Your task to perform on an android device: toggle translation in the chrome app Image 0: 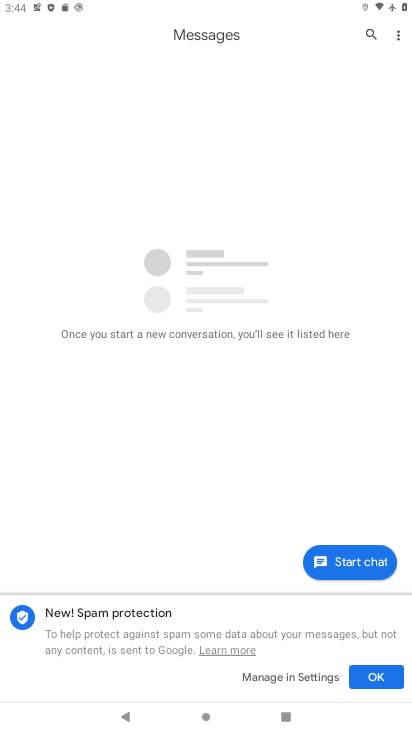
Step 0: press back button
Your task to perform on an android device: toggle translation in the chrome app Image 1: 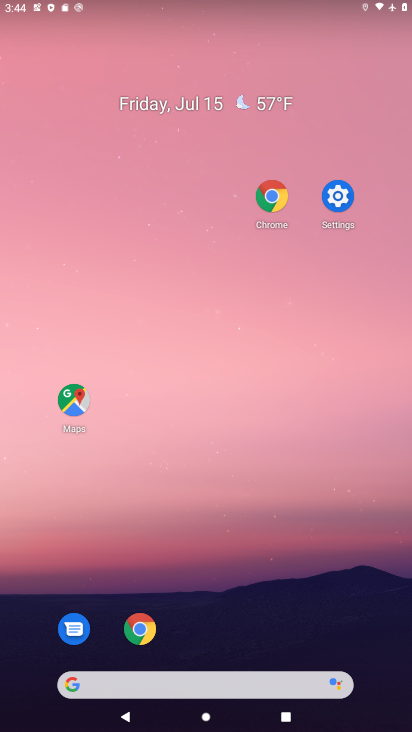
Step 1: drag from (280, 652) to (200, 129)
Your task to perform on an android device: toggle translation in the chrome app Image 2: 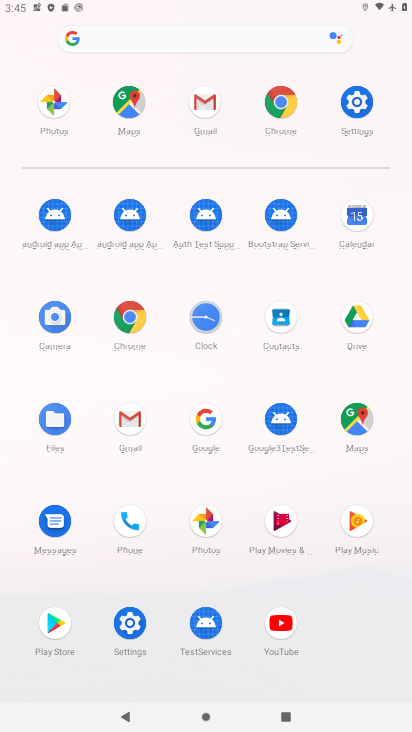
Step 2: click (279, 105)
Your task to perform on an android device: toggle translation in the chrome app Image 3: 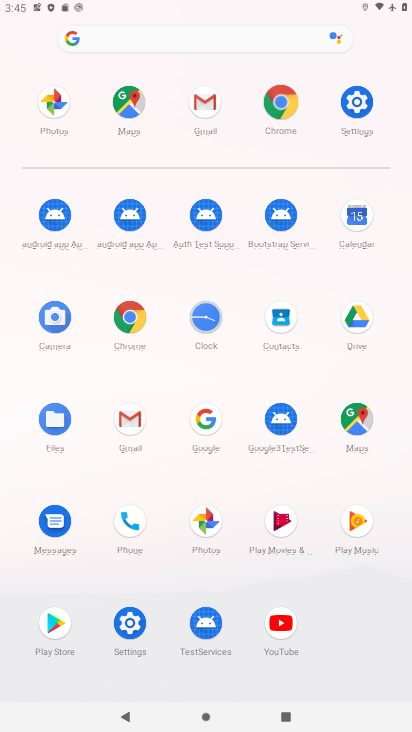
Step 3: click (280, 104)
Your task to perform on an android device: toggle translation in the chrome app Image 4: 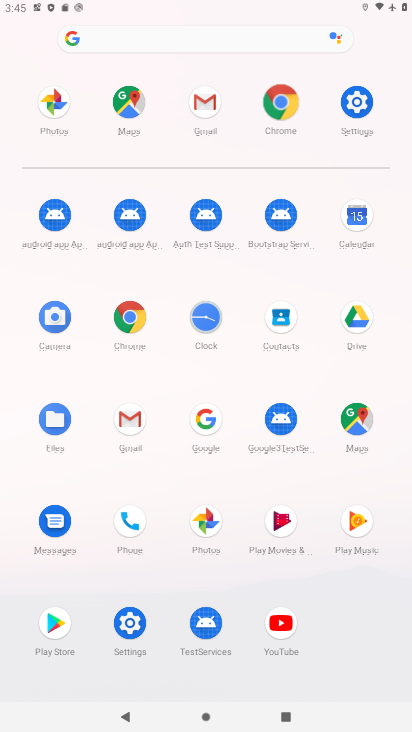
Step 4: click (280, 105)
Your task to perform on an android device: toggle translation in the chrome app Image 5: 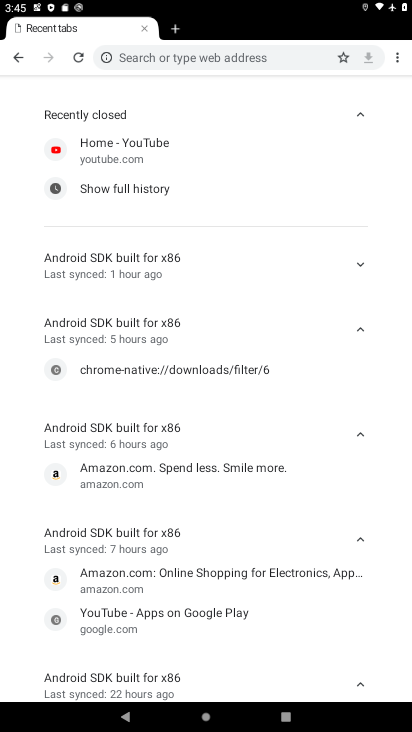
Step 5: drag from (397, 55) to (290, 258)
Your task to perform on an android device: toggle translation in the chrome app Image 6: 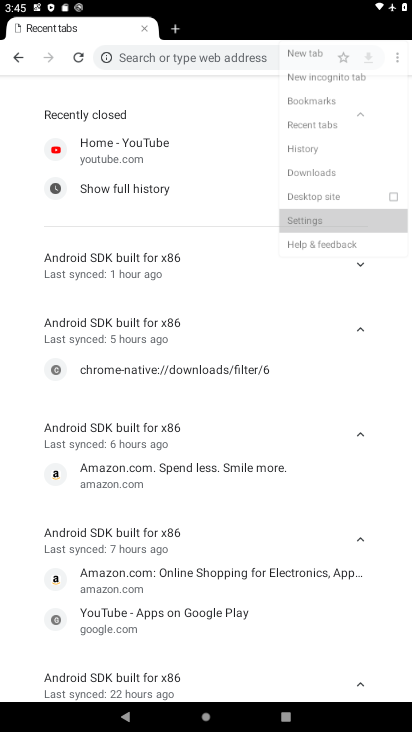
Step 6: click (299, 260)
Your task to perform on an android device: toggle translation in the chrome app Image 7: 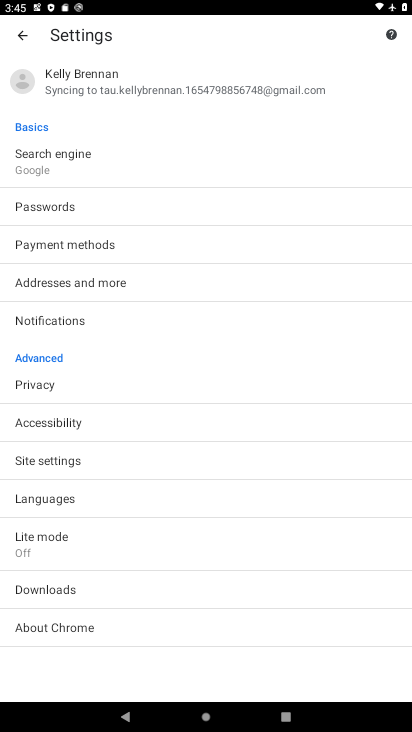
Step 7: click (94, 496)
Your task to perform on an android device: toggle translation in the chrome app Image 8: 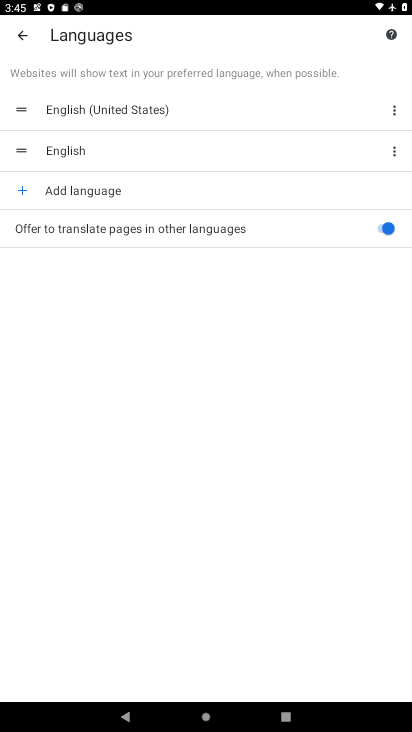
Step 8: click (387, 222)
Your task to perform on an android device: toggle translation in the chrome app Image 9: 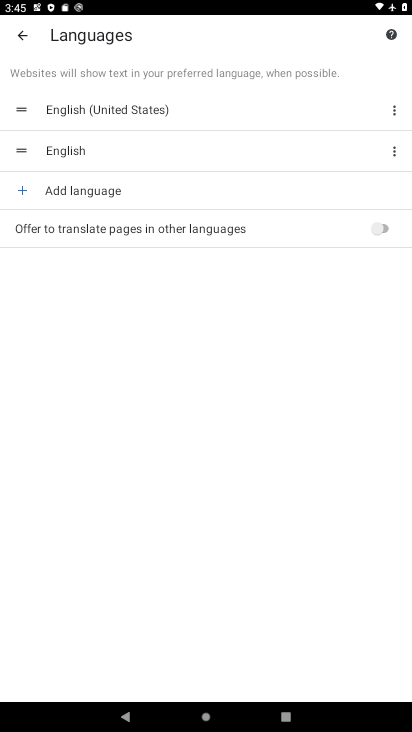
Step 9: task complete